Your task to perform on an android device: Open battery settings Image 0: 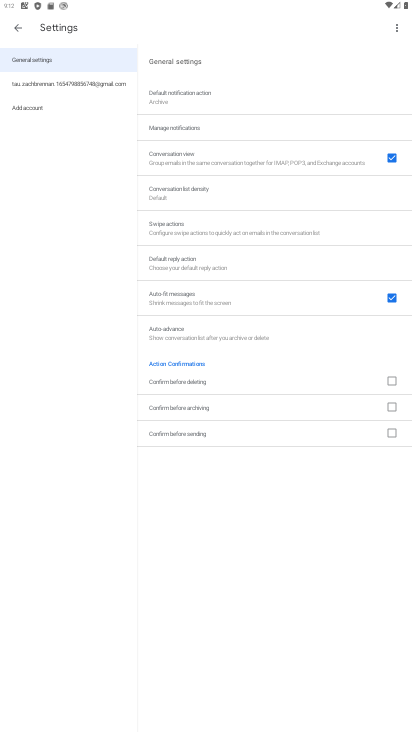
Step 0: press home button
Your task to perform on an android device: Open battery settings Image 1: 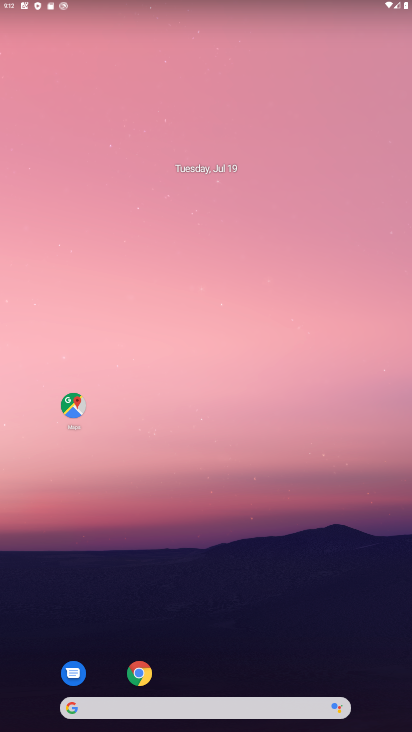
Step 1: drag from (185, 665) to (216, 120)
Your task to perform on an android device: Open battery settings Image 2: 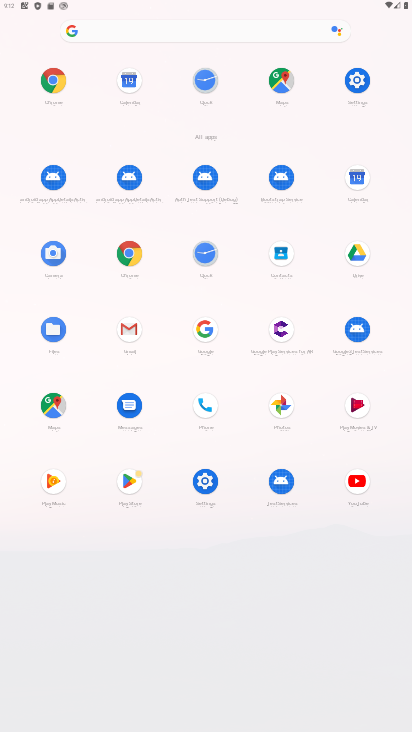
Step 2: click (337, 78)
Your task to perform on an android device: Open battery settings Image 3: 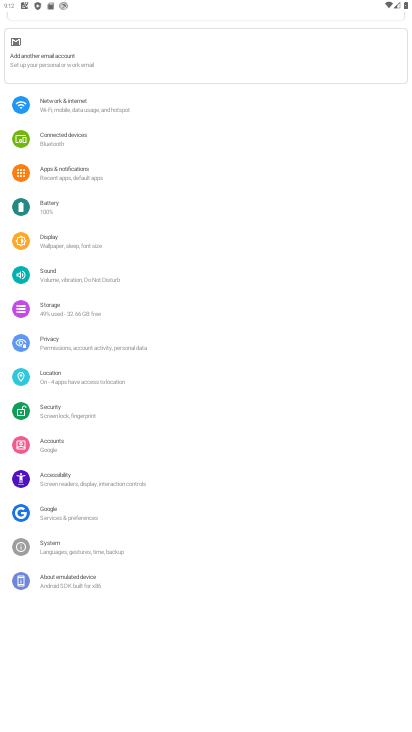
Step 3: click (66, 212)
Your task to perform on an android device: Open battery settings Image 4: 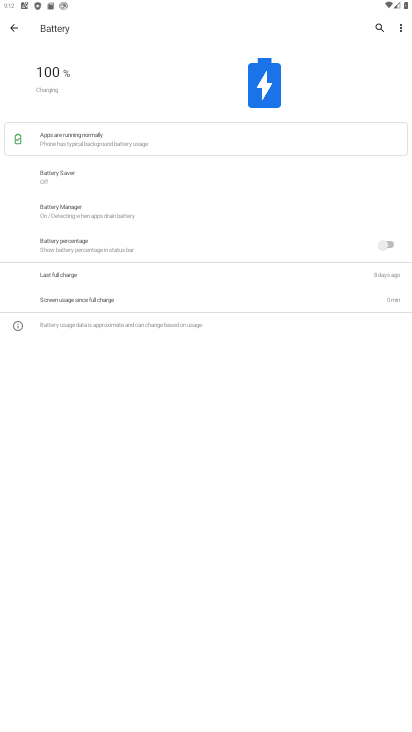
Step 4: task complete